Your task to perform on an android device: Open Google Image 0: 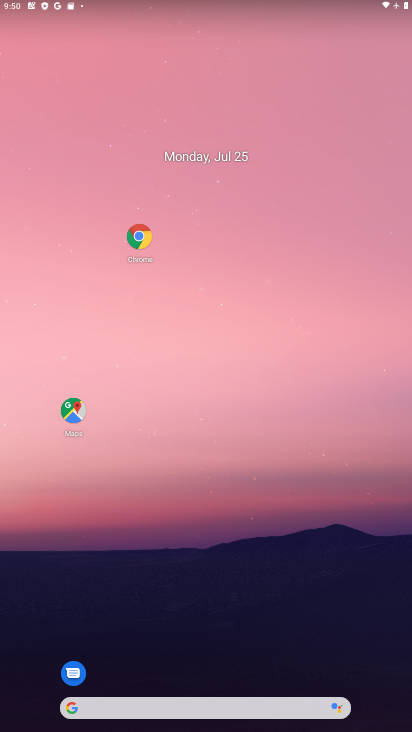
Step 0: click (140, 238)
Your task to perform on an android device: Open Google Image 1: 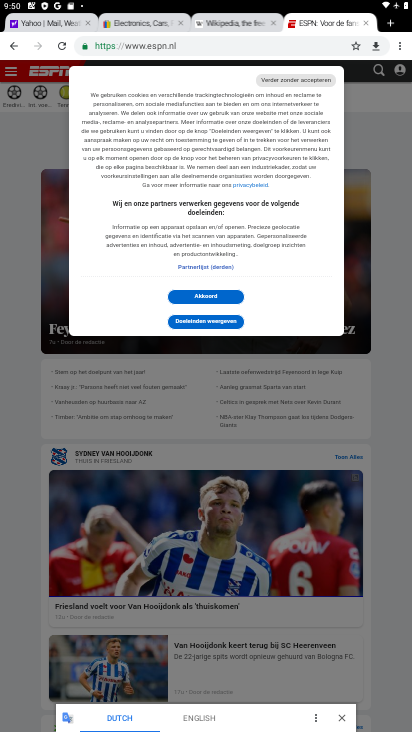
Step 1: task complete